Your task to perform on an android device: choose inbox layout in the gmail app Image 0: 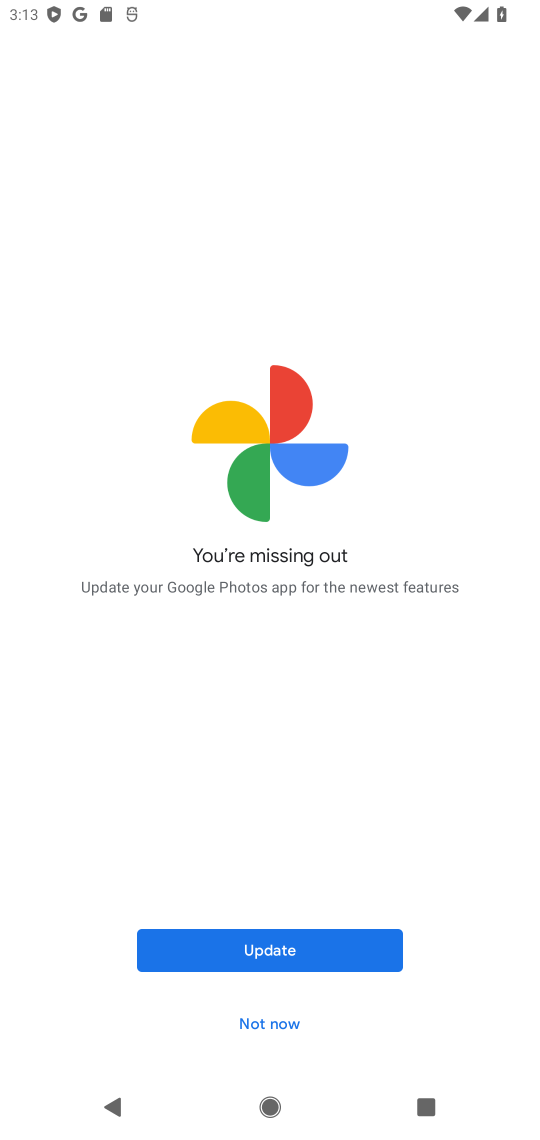
Step 0: press home button
Your task to perform on an android device: choose inbox layout in the gmail app Image 1: 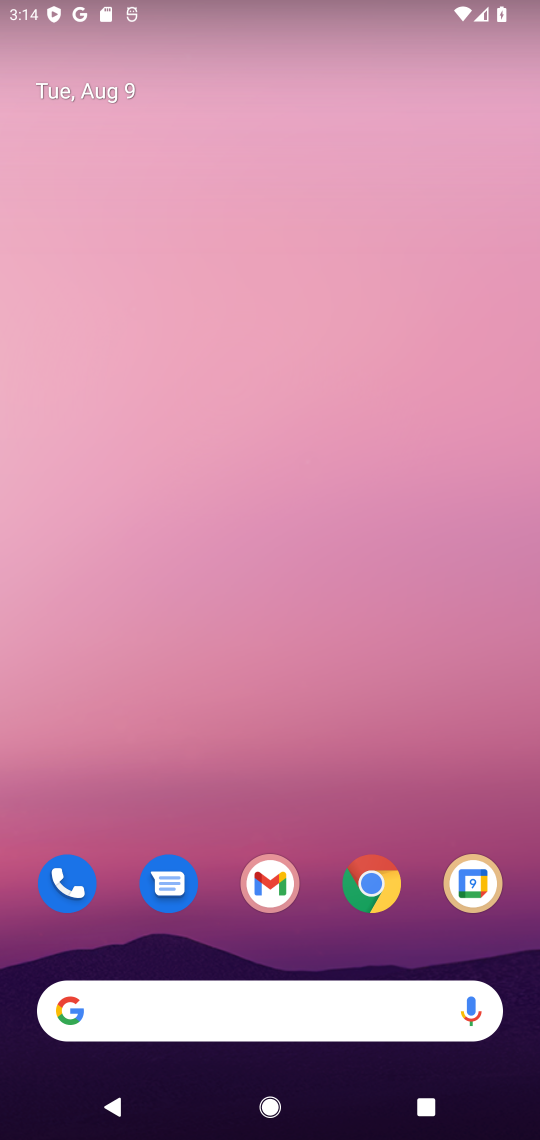
Step 1: click (266, 883)
Your task to perform on an android device: choose inbox layout in the gmail app Image 2: 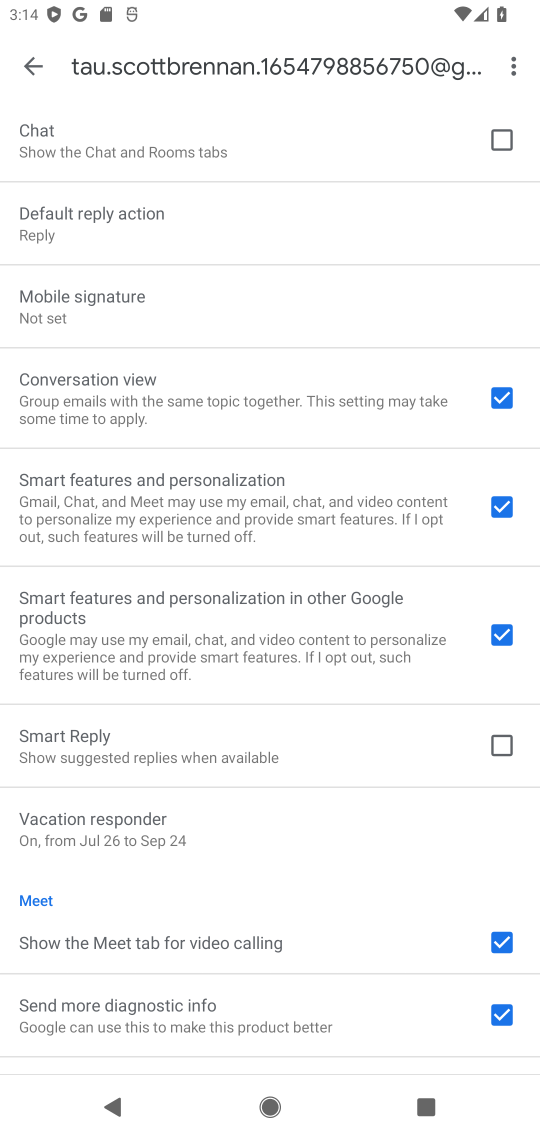
Step 2: drag from (282, 337) to (254, 842)
Your task to perform on an android device: choose inbox layout in the gmail app Image 3: 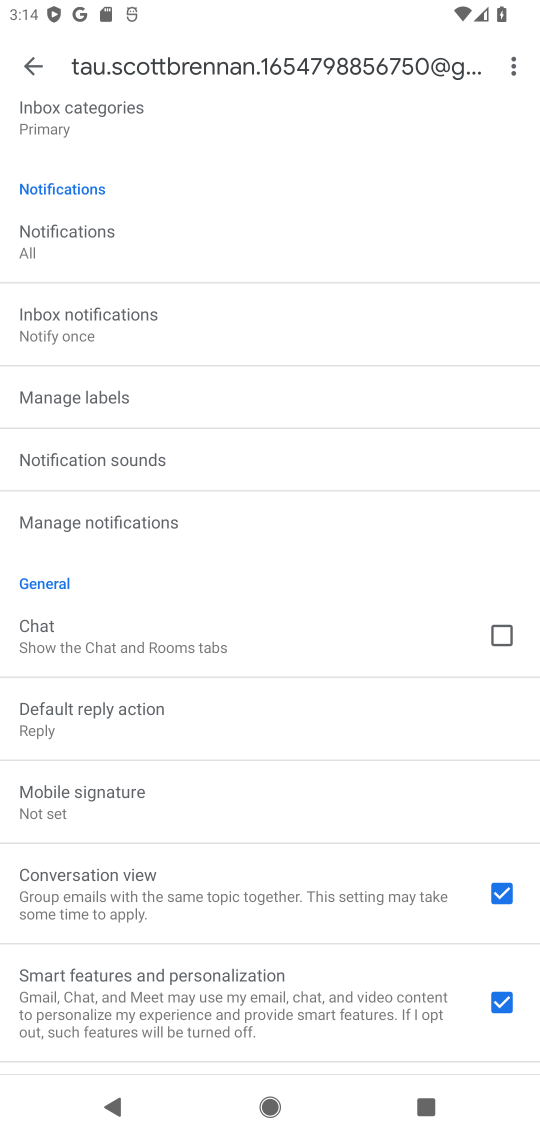
Step 3: drag from (305, 307) to (322, 917)
Your task to perform on an android device: choose inbox layout in the gmail app Image 4: 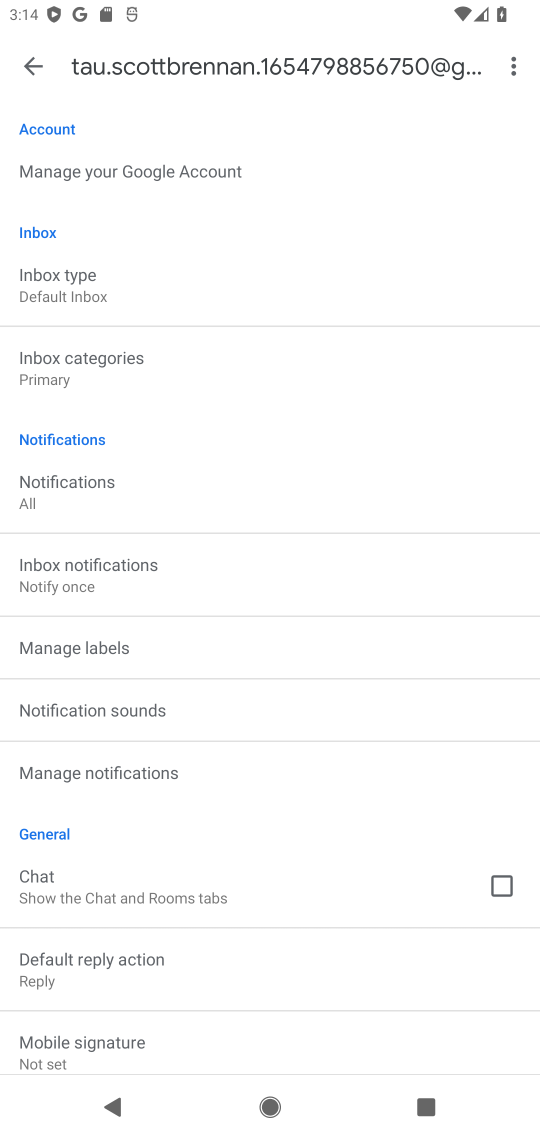
Step 4: click (66, 277)
Your task to perform on an android device: choose inbox layout in the gmail app Image 5: 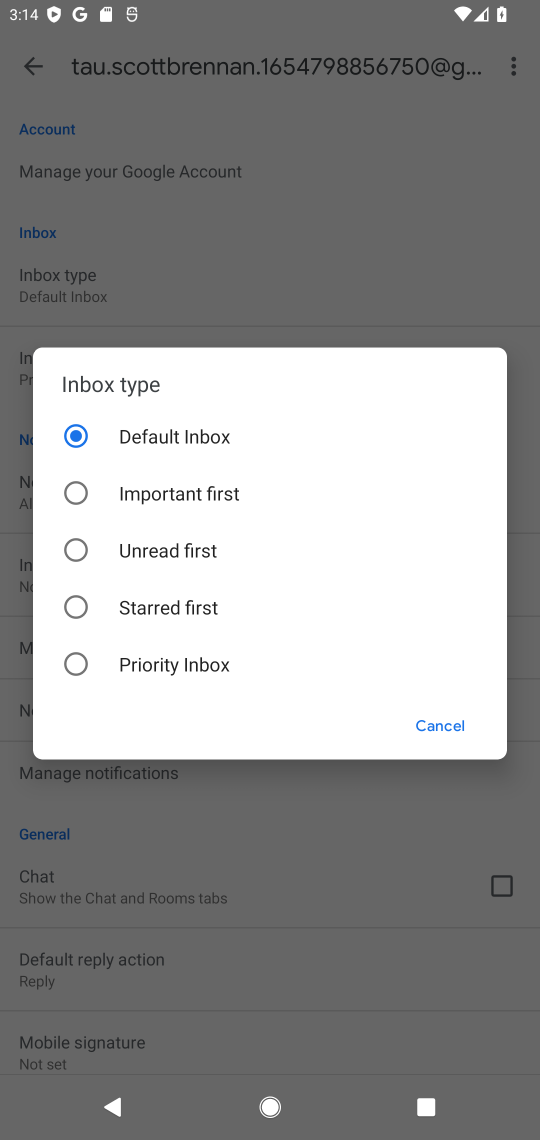
Step 5: click (70, 495)
Your task to perform on an android device: choose inbox layout in the gmail app Image 6: 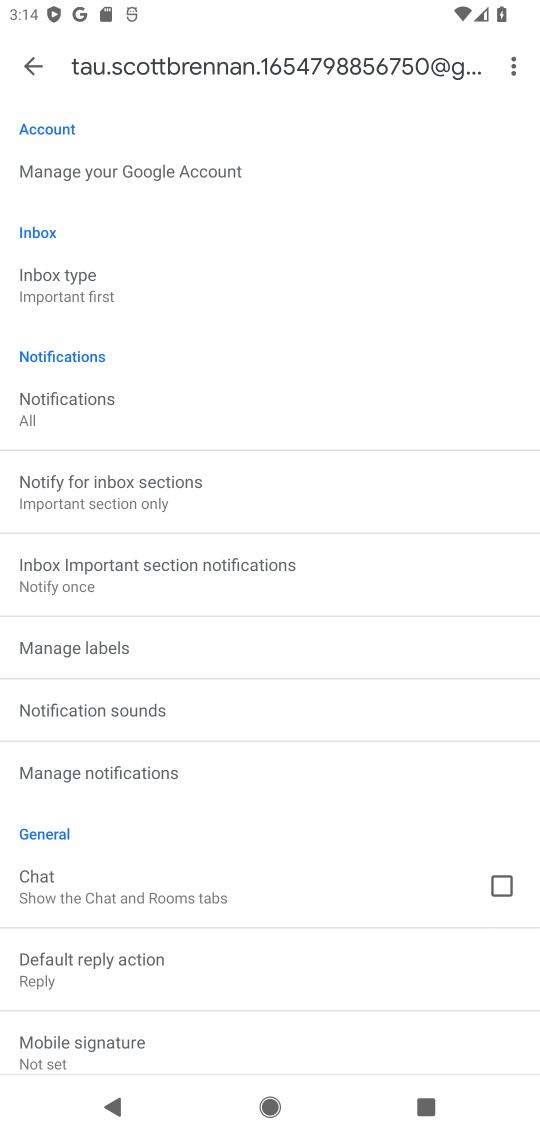
Step 6: task complete